Your task to perform on an android device: Open my contact list Image 0: 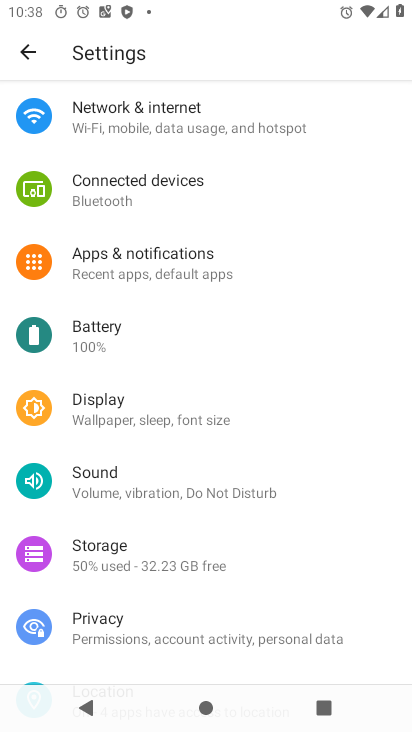
Step 0: press home button
Your task to perform on an android device: Open my contact list Image 1: 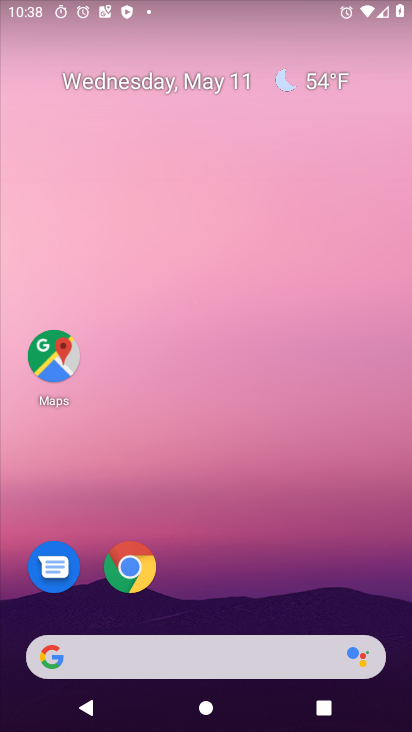
Step 1: drag from (196, 610) to (231, 0)
Your task to perform on an android device: Open my contact list Image 2: 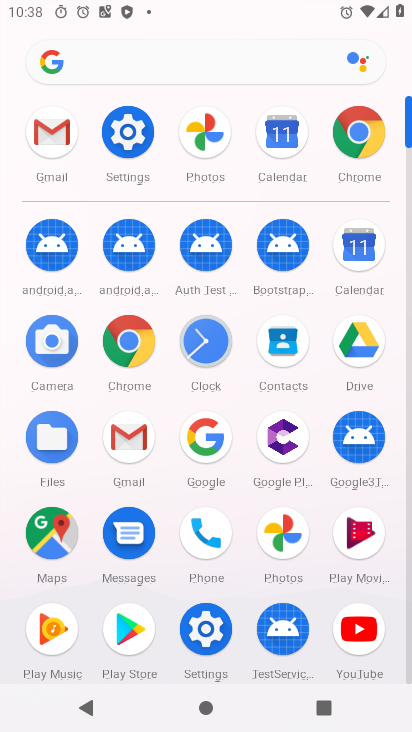
Step 2: click (302, 339)
Your task to perform on an android device: Open my contact list Image 3: 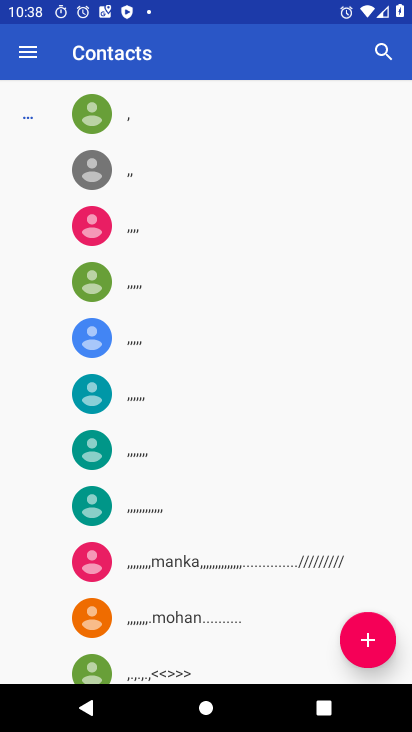
Step 3: task complete